Your task to perform on an android device: clear all cookies in the chrome app Image 0: 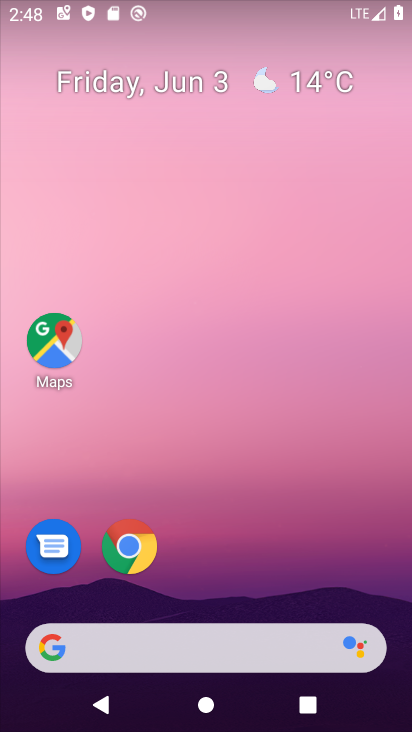
Step 0: drag from (316, 566) to (274, 153)
Your task to perform on an android device: clear all cookies in the chrome app Image 1: 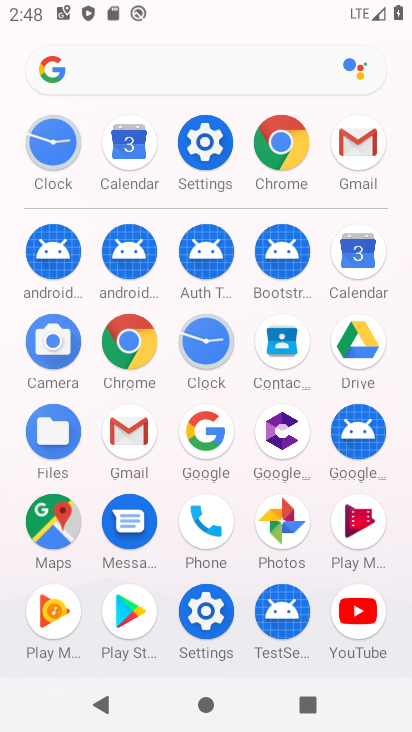
Step 1: click (274, 158)
Your task to perform on an android device: clear all cookies in the chrome app Image 2: 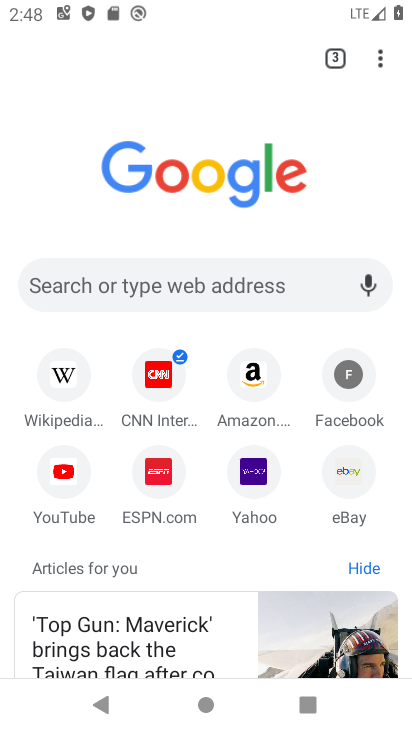
Step 2: drag from (372, 54) to (211, 481)
Your task to perform on an android device: clear all cookies in the chrome app Image 3: 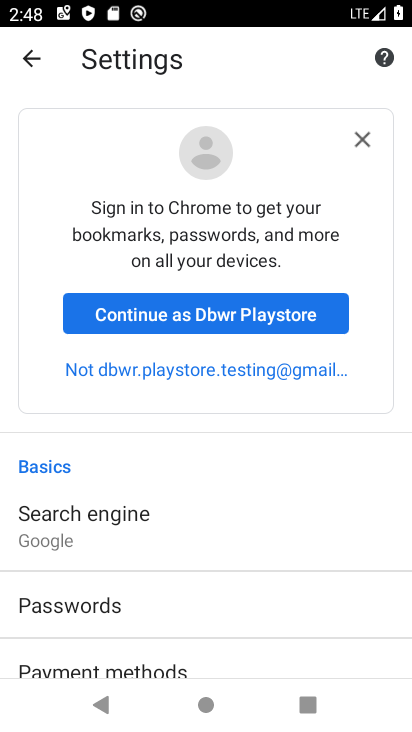
Step 3: drag from (226, 665) to (282, 225)
Your task to perform on an android device: clear all cookies in the chrome app Image 4: 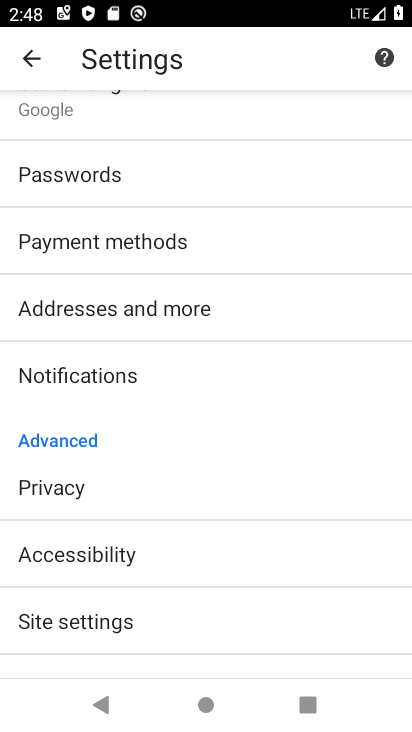
Step 4: click (27, 61)
Your task to perform on an android device: clear all cookies in the chrome app Image 5: 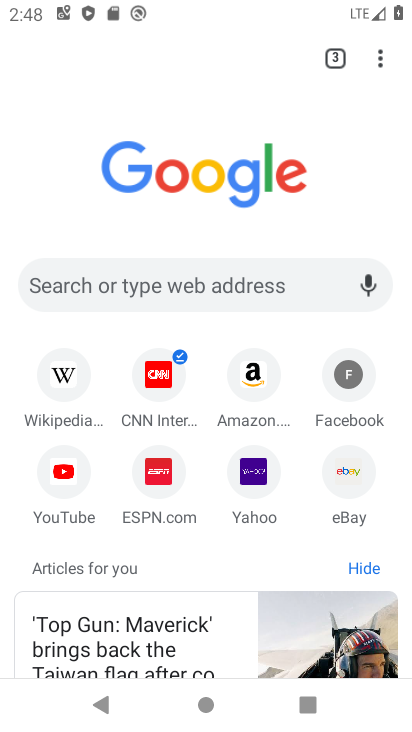
Step 5: drag from (380, 46) to (156, 337)
Your task to perform on an android device: clear all cookies in the chrome app Image 6: 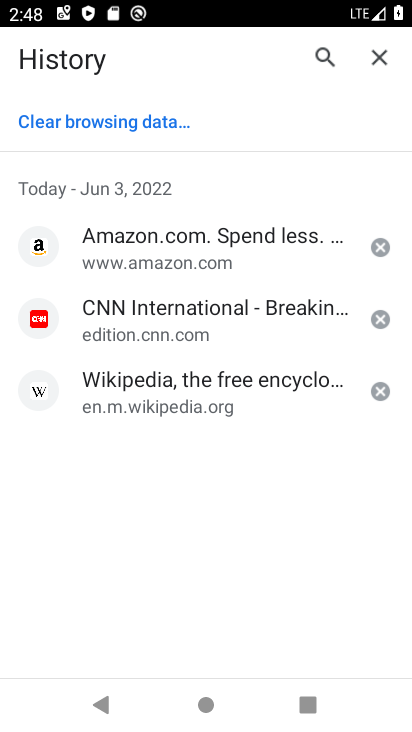
Step 6: click (60, 115)
Your task to perform on an android device: clear all cookies in the chrome app Image 7: 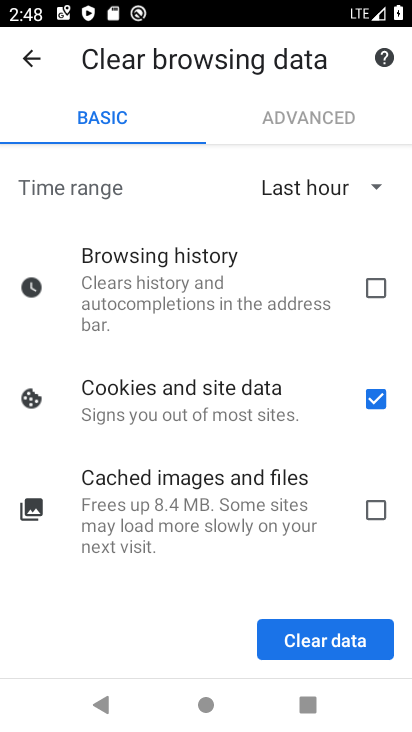
Step 7: click (340, 639)
Your task to perform on an android device: clear all cookies in the chrome app Image 8: 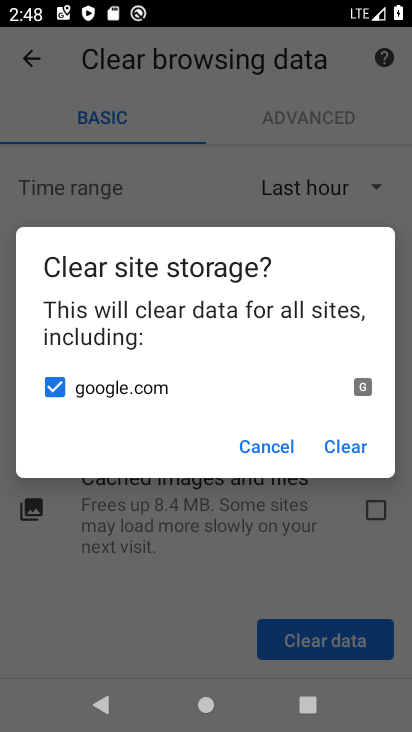
Step 8: click (328, 431)
Your task to perform on an android device: clear all cookies in the chrome app Image 9: 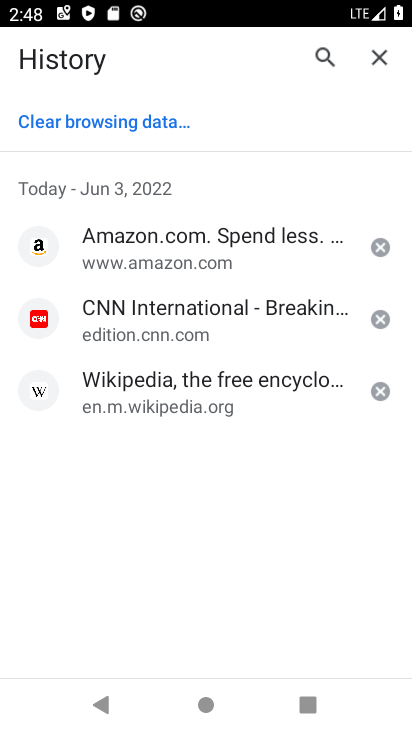
Step 9: task complete